Your task to perform on an android device: Open Google Chrome and click the shortcut for Amazon.com Image 0: 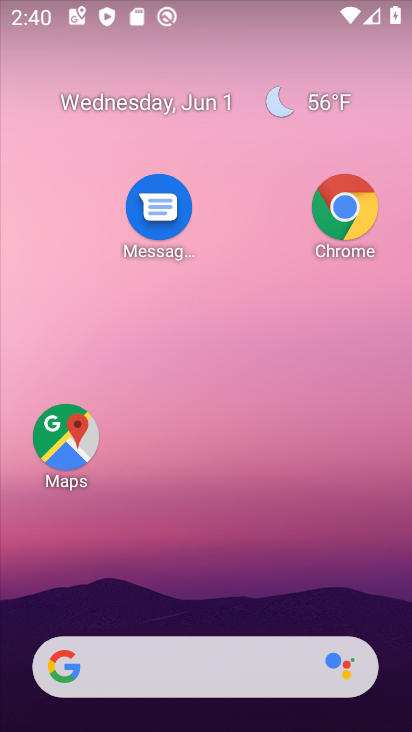
Step 0: drag from (165, 578) to (263, 99)
Your task to perform on an android device: Open Google Chrome and click the shortcut for Amazon.com Image 1: 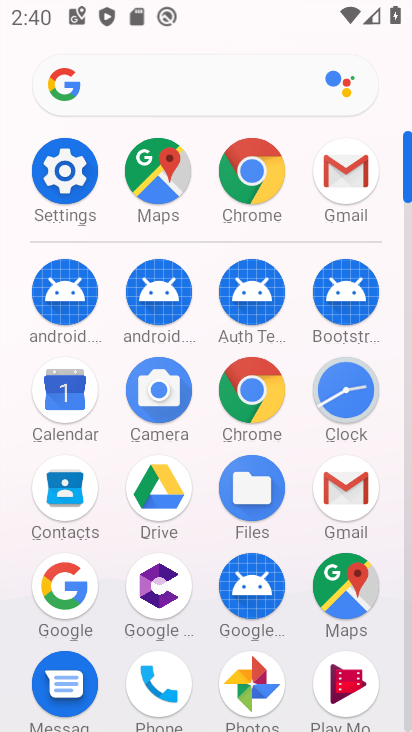
Step 1: click (250, 180)
Your task to perform on an android device: Open Google Chrome and click the shortcut for Amazon.com Image 2: 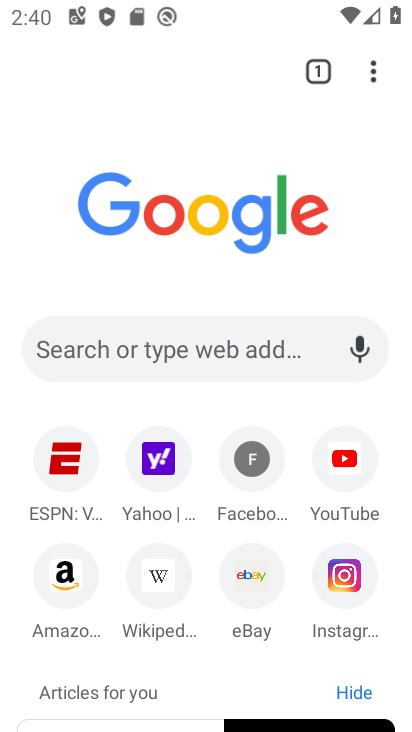
Step 2: click (79, 575)
Your task to perform on an android device: Open Google Chrome and click the shortcut for Amazon.com Image 3: 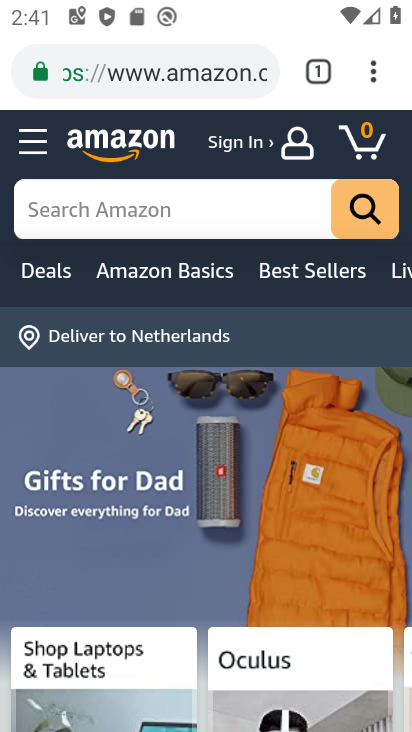
Step 3: task complete